Your task to perform on an android device: add a contact Image 0: 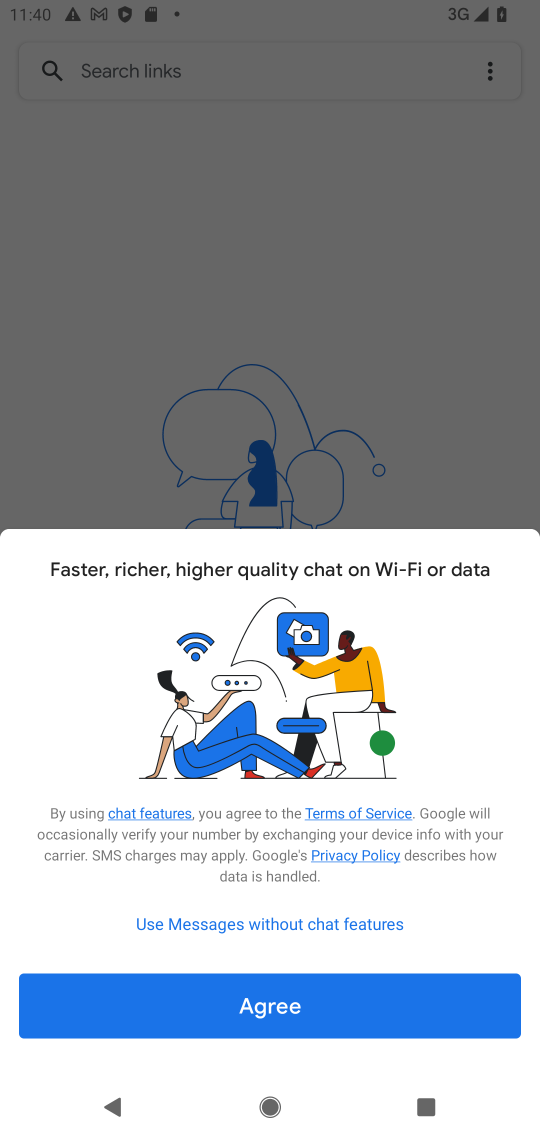
Step 0: drag from (333, 613) to (368, 287)
Your task to perform on an android device: add a contact Image 1: 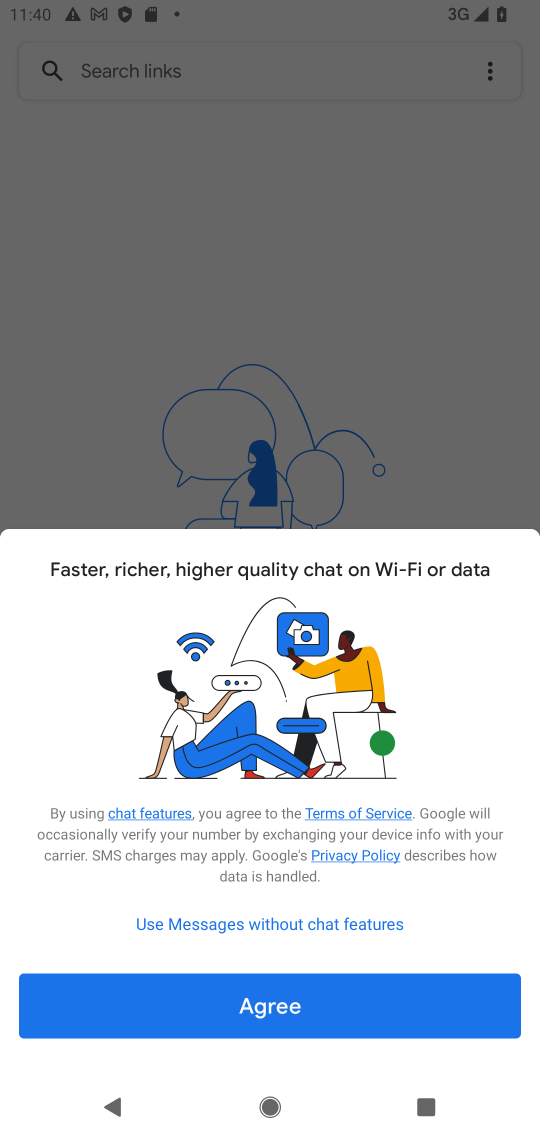
Step 1: press home button
Your task to perform on an android device: add a contact Image 2: 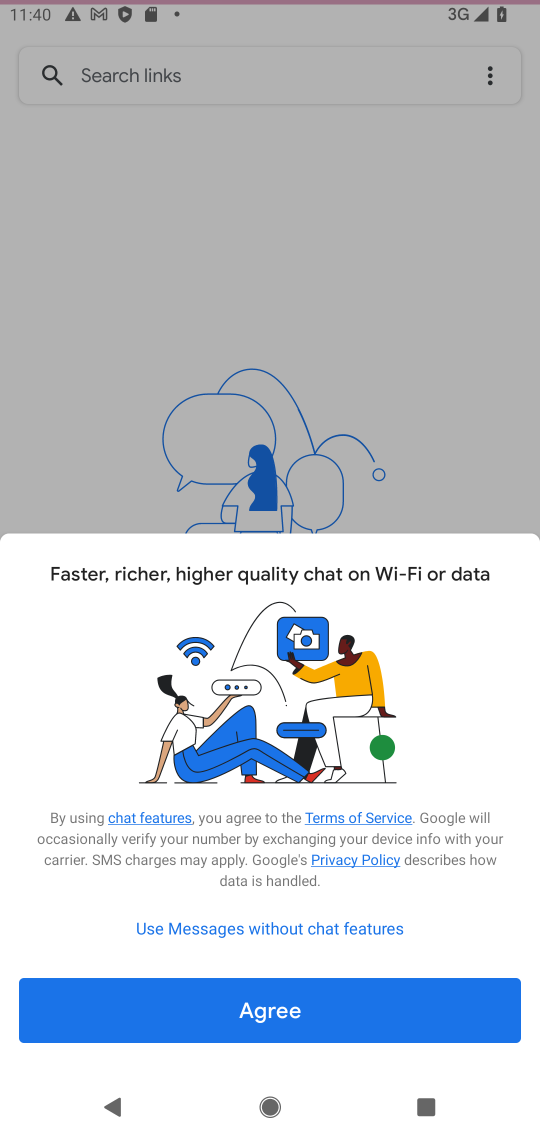
Step 2: drag from (359, 944) to (432, 240)
Your task to perform on an android device: add a contact Image 3: 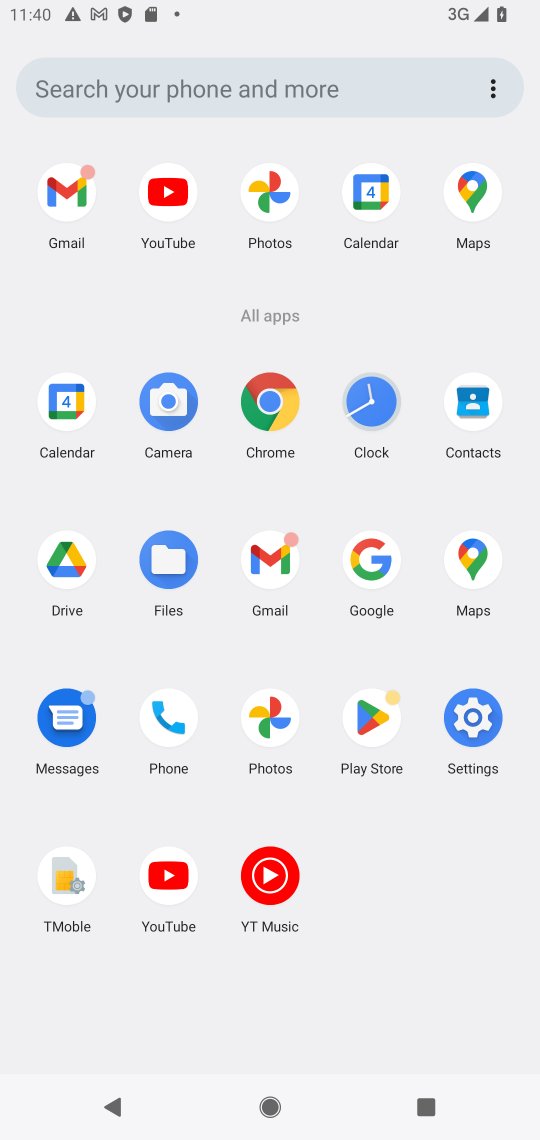
Step 3: click (474, 393)
Your task to perform on an android device: add a contact Image 4: 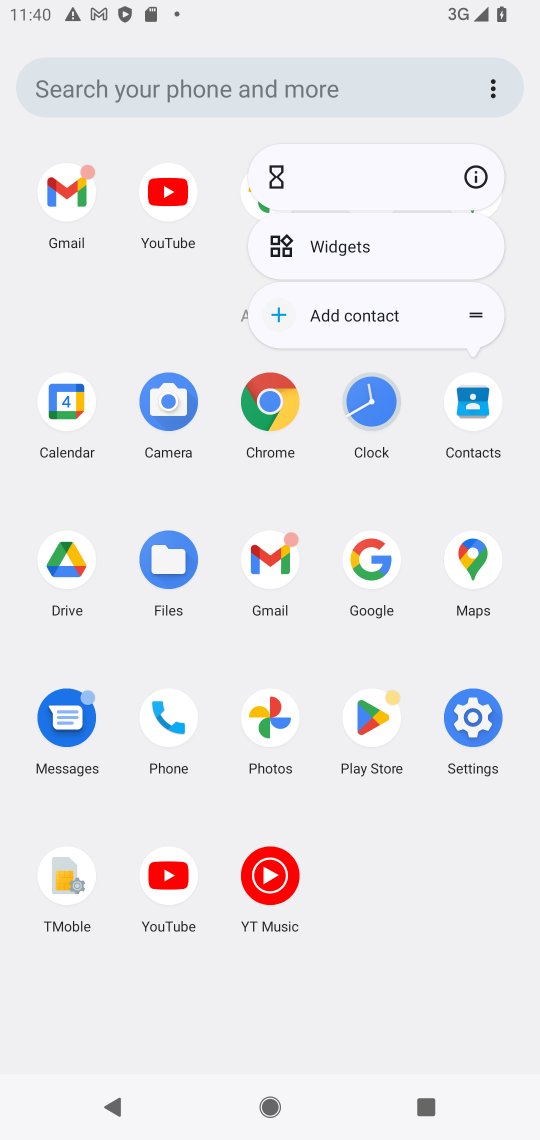
Step 4: click (479, 168)
Your task to perform on an android device: add a contact Image 5: 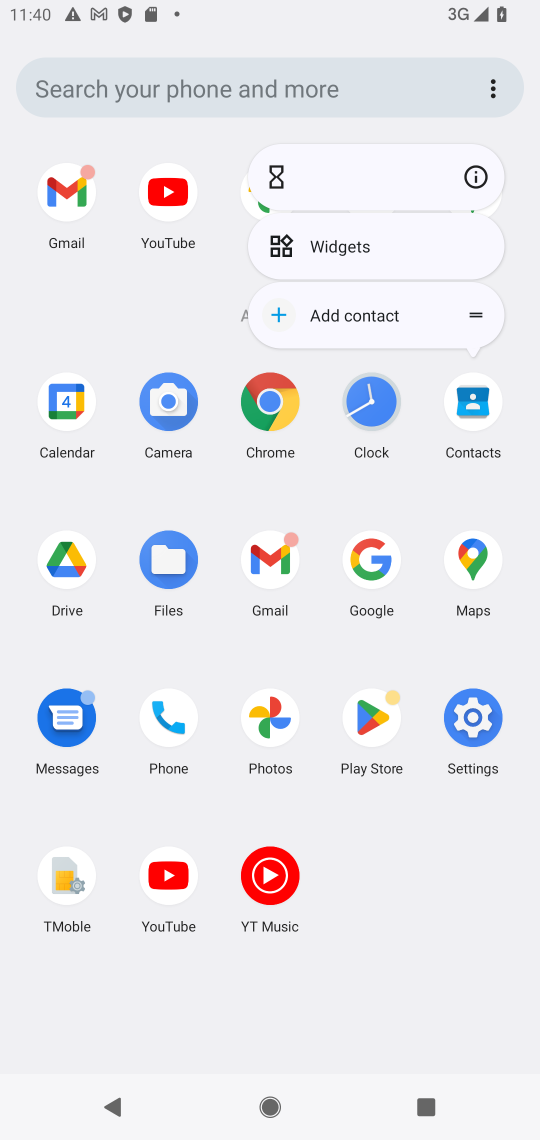
Step 5: click (474, 176)
Your task to perform on an android device: add a contact Image 6: 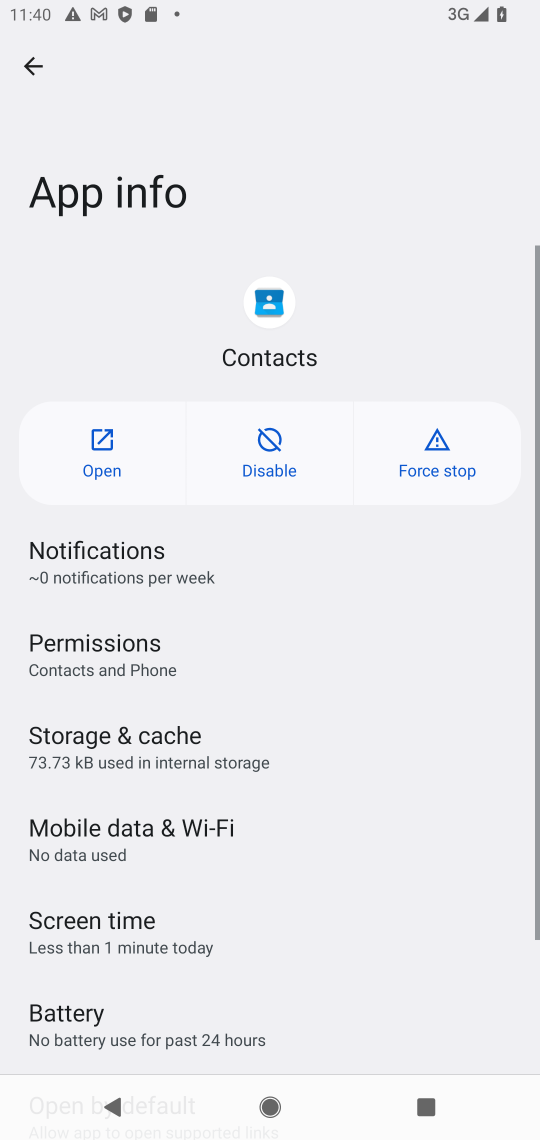
Step 6: click (93, 456)
Your task to perform on an android device: add a contact Image 7: 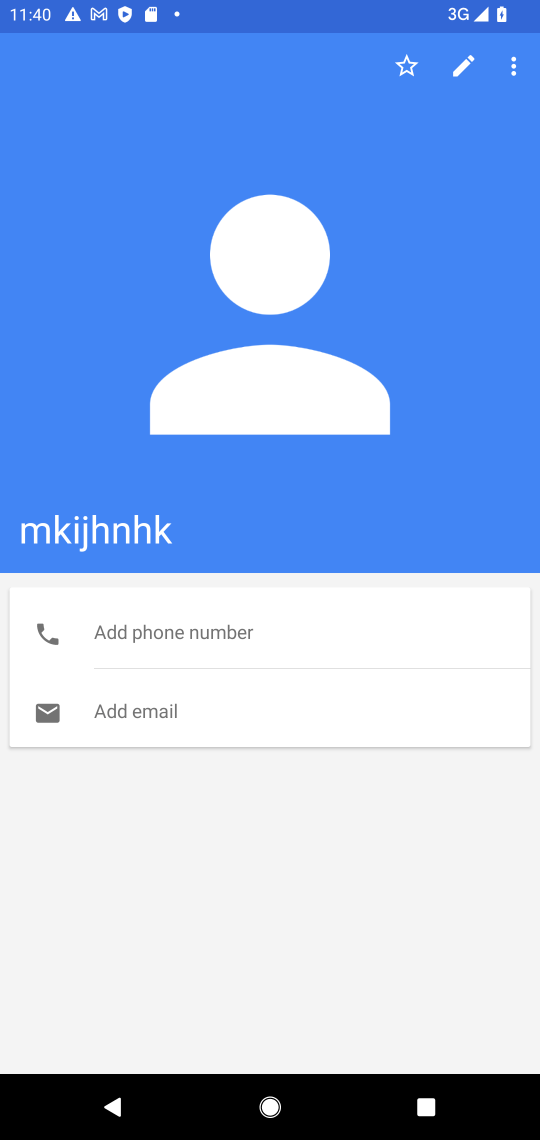
Step 7: drag from (247, 719) to (320, 361)
Your task to perform on an android device: add a contact Image 8: 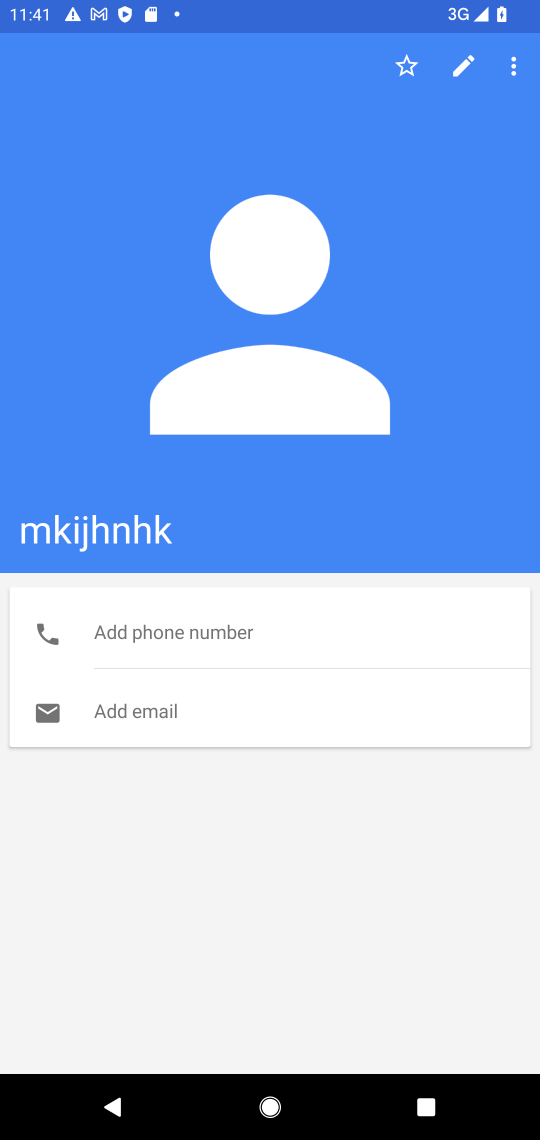
Step 8: drag from (379, 366) to (383, 730)
Your task to perform on an android device: add a contact Image 9: 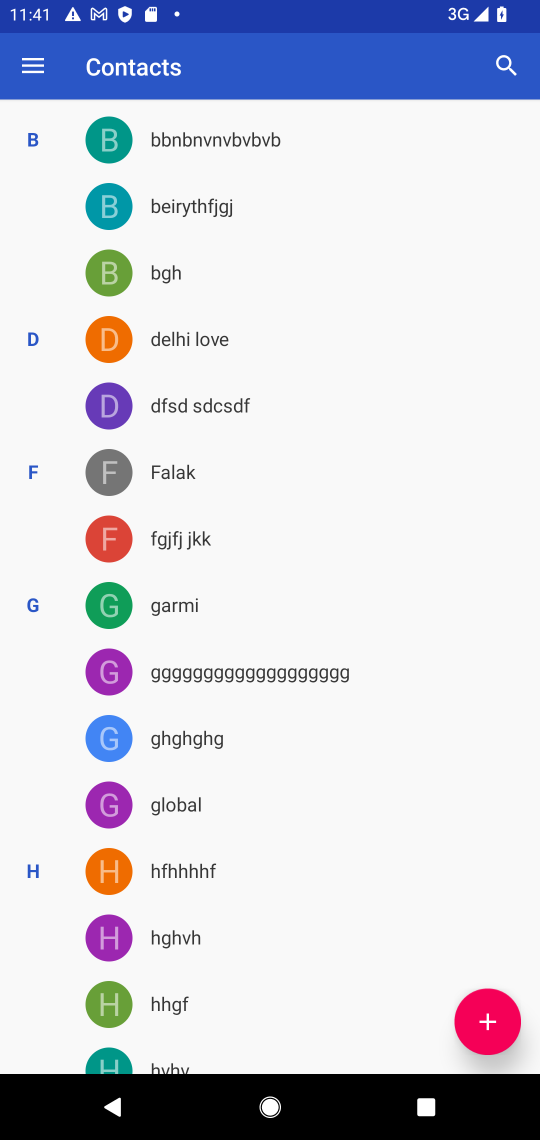
Step 9: click (495, 1018)
Your task to perform on an android device: add a contact Image 10: 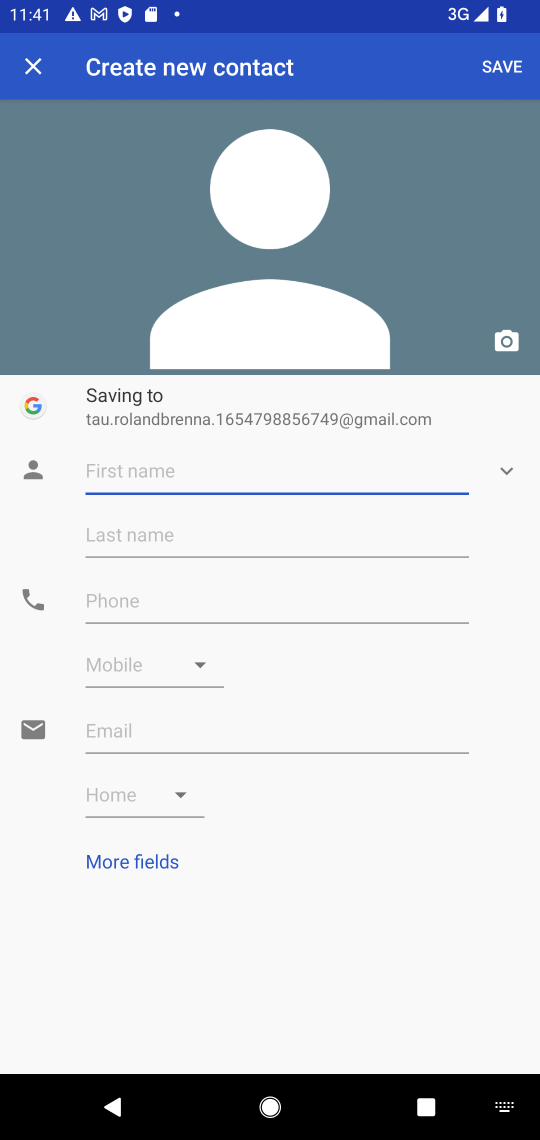
Step 10: click (162, 472)
Your task to perform on an android device: add a contact Image 11: 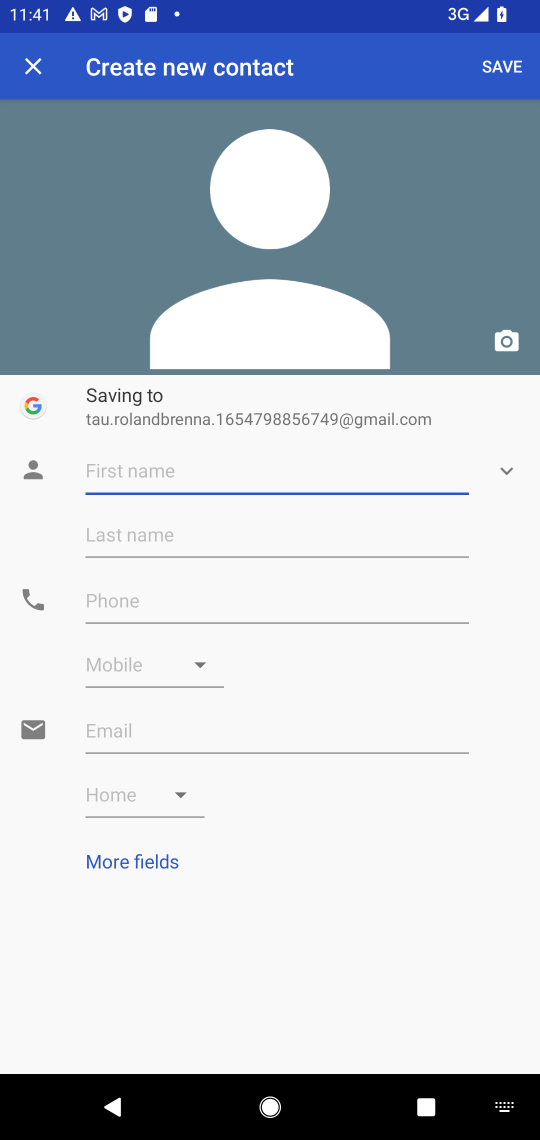
Step 11: type "jbvhtikmjm"
Your task to perform on an android device: add a contact Image 12: 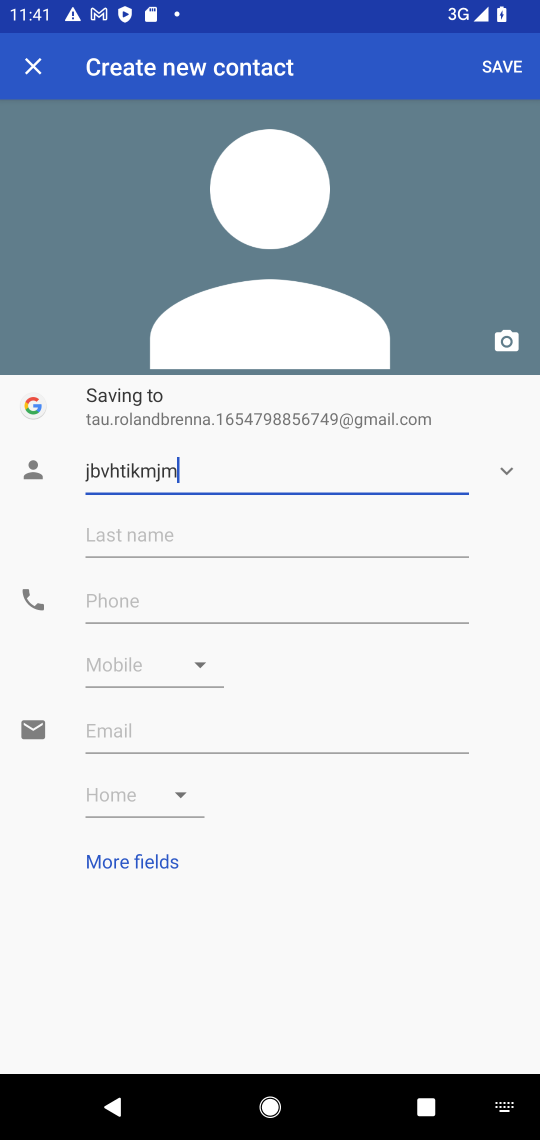
Step 12: click (510, 54)
Your task to perform on an android device: add a contact Image 13: 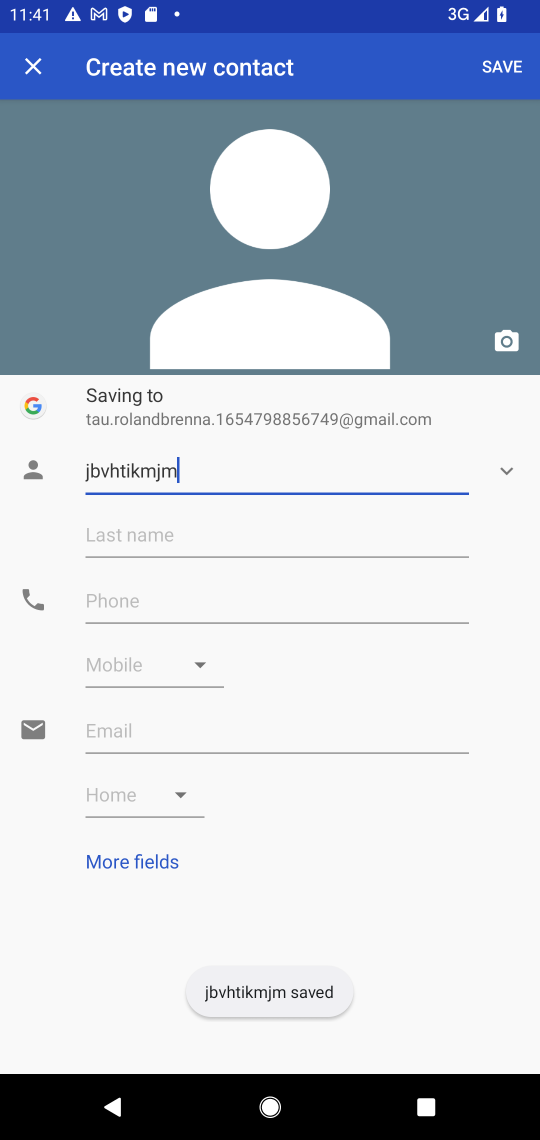
Step 13: task complete